Your task to perform on an android device: Open location settings Image 0: 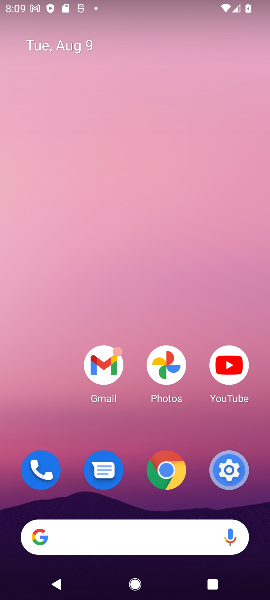
Step 0: drag from (133, 502) to (96, 67)
Your task to perform on an android device: Open location settings Image 1: 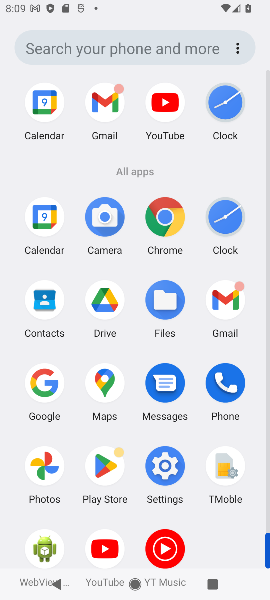
Step 1: click (167, 472)
Your task to perform on an android device: Open location settings Image 2: 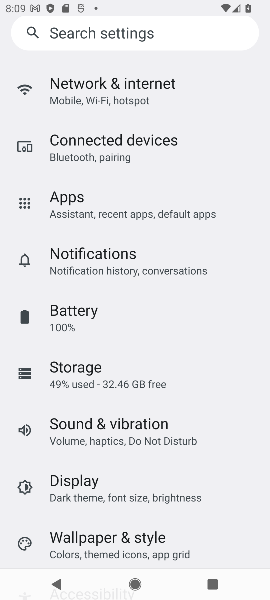
Step 2: drag from (143, 497) to (140, 186)
Your task to perform on an android device: Open location settings Image 3: 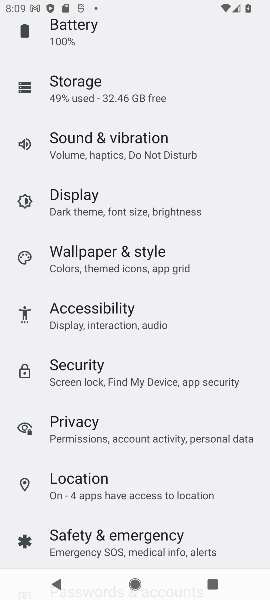
Step 3: click (104, 491)
Your task to perform on an android device: Open location settings Image 4: 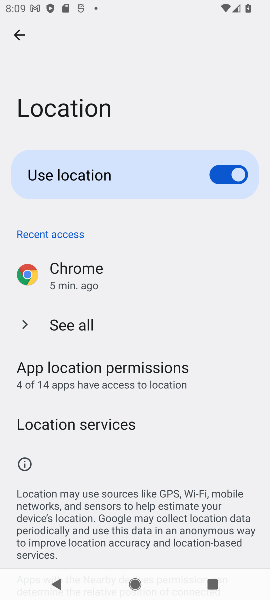
Step 4: task complete